Your task to perform on an android device: turn on wifi Image 0: 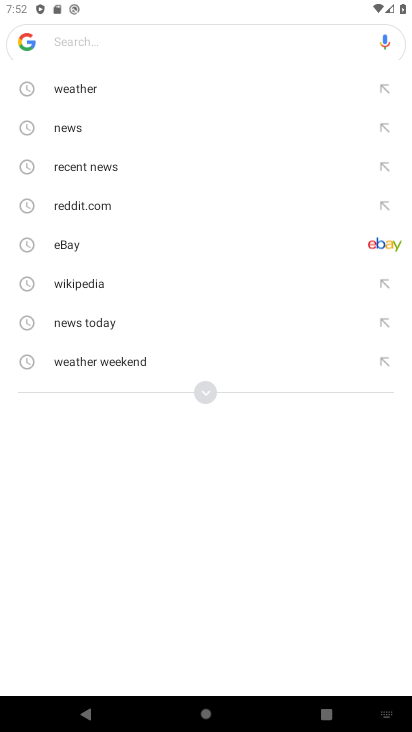
Step 0: press back button
Your task to perform on an android device: turn on wifi Image 1: 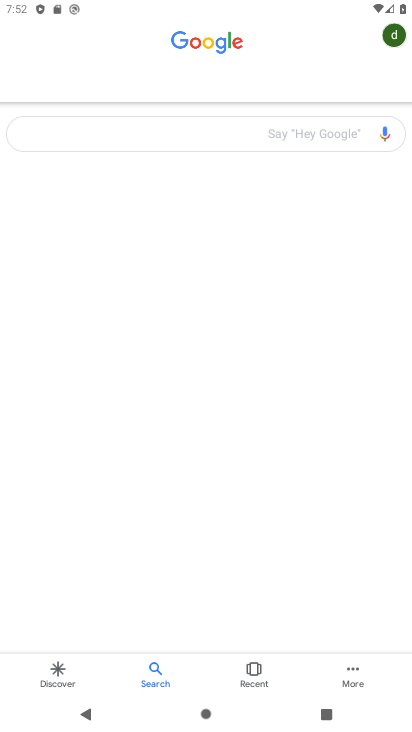
Step 1: press back button
Your task to perform on an android device: turn on wifi Image 2: 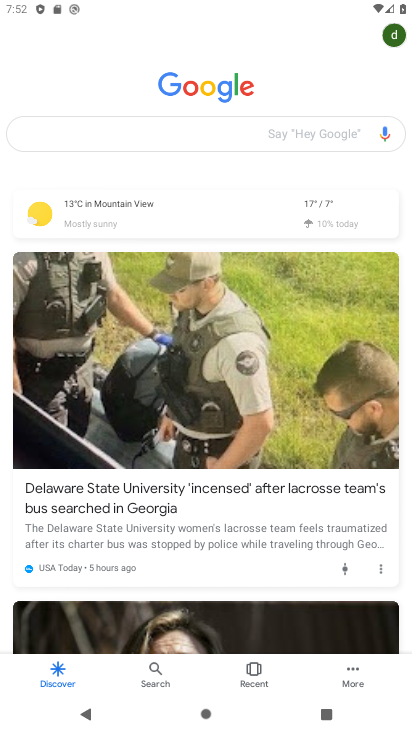
Step 2: press back button
Your task to perform on an android device: turn on wifi Image 3: 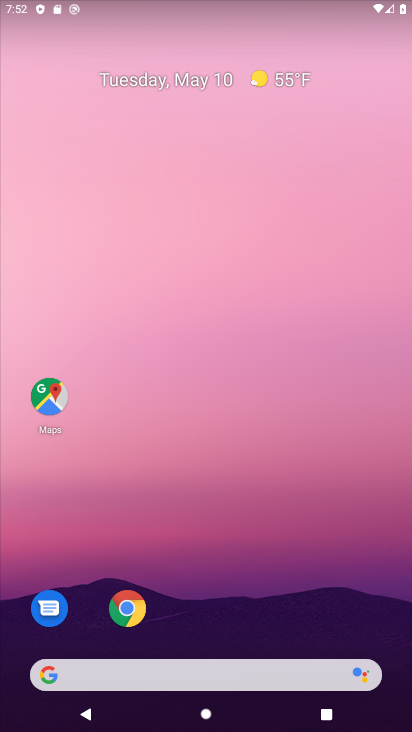
Step 3: drag from (248, 544) to (210, 95)
Your task to perform on an android device: turn on wifi Image 4: 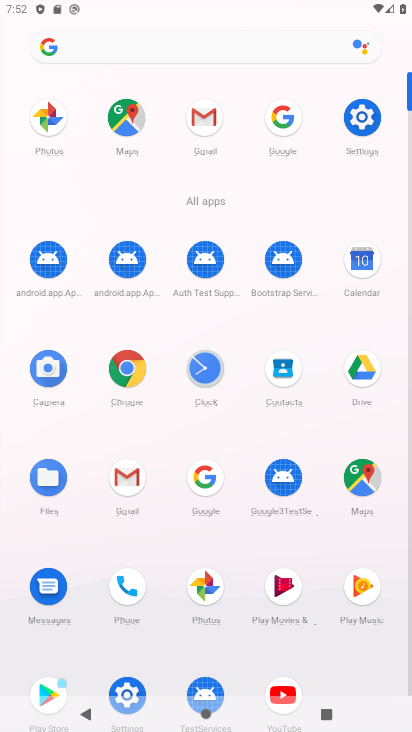
Step 4: click (362, 117)
Your task to perform on an android device: turn on wifi Image 5: 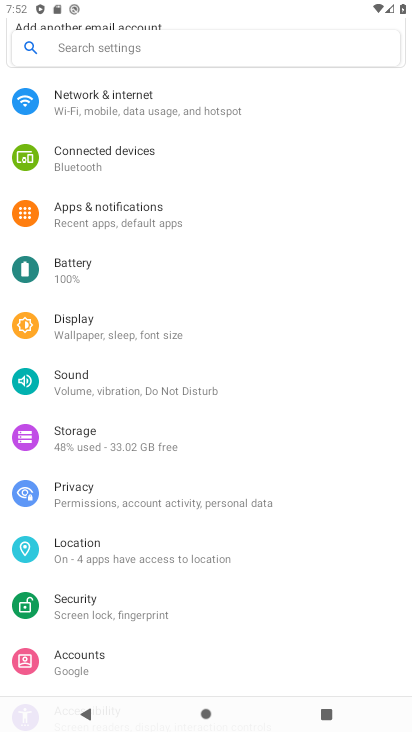
Step 5: click (149, 102)
Your task to perform on an android device: turn on wifi Image 6: 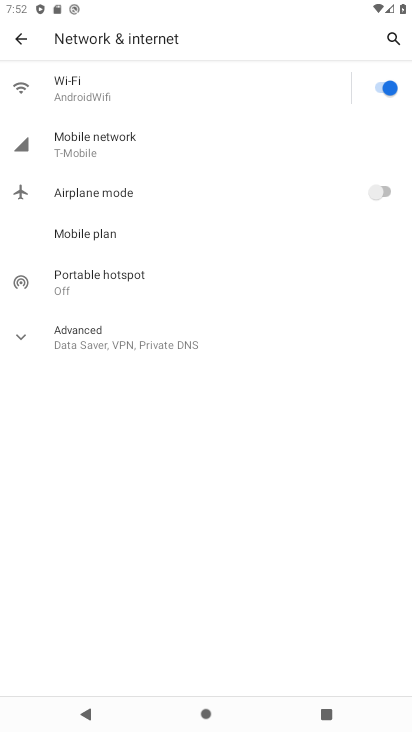
Step 6: task complete